Your task to perform on an android device: Search for seafood restaurants on Google Maps Image 0: 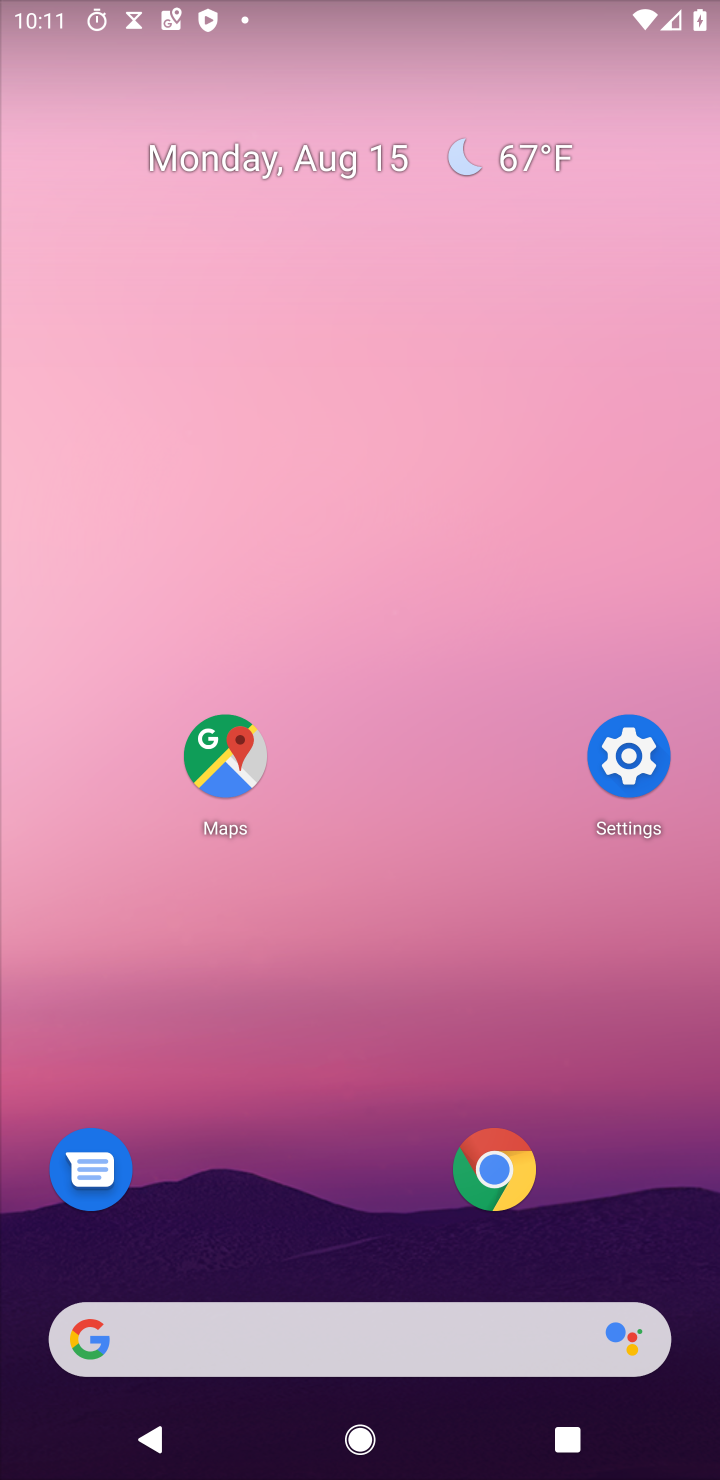
Step 0: click (247, 766)
Your task to perform on an android device: Search for seafood restaurants on Google Maps Image 1: 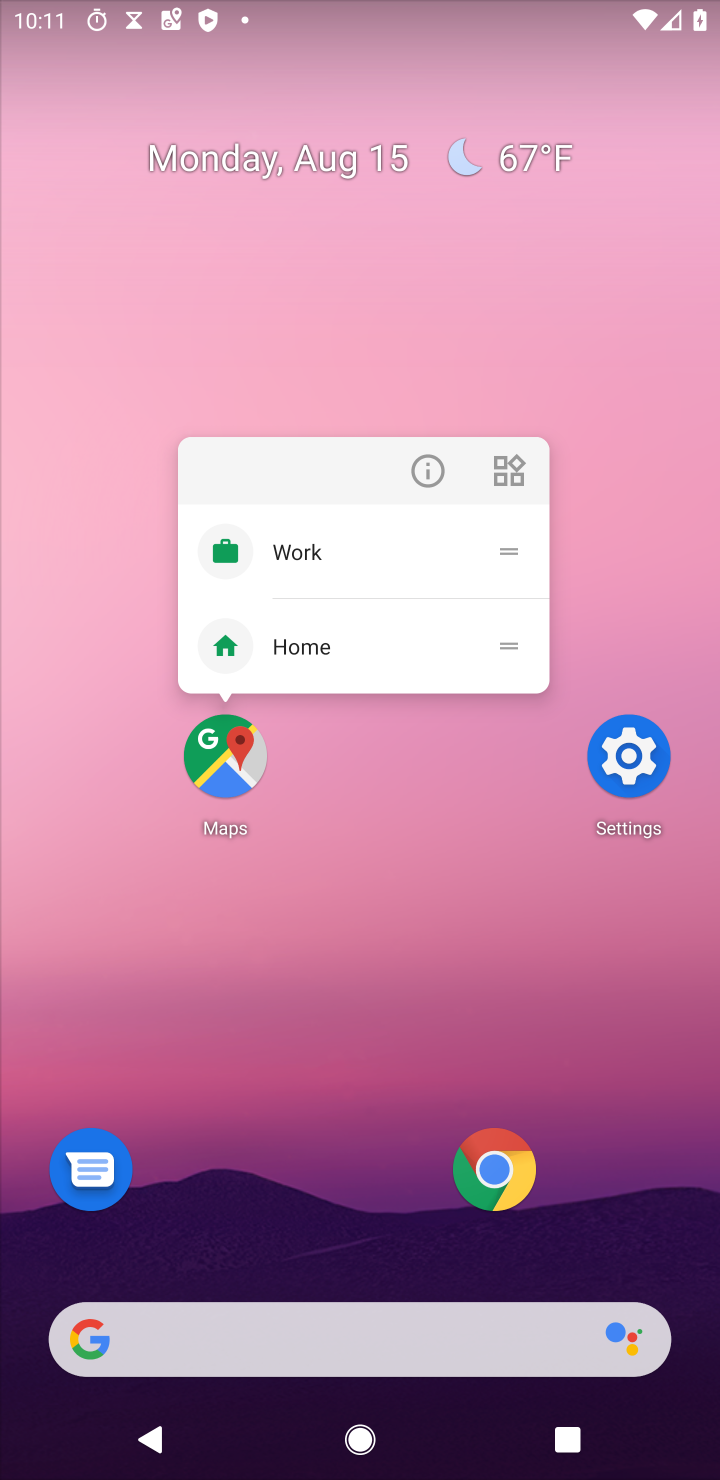
Step 1: click (218, 770)
Your task to perform on an android device: Search for seafood restaurants on Google Maps Image 2: 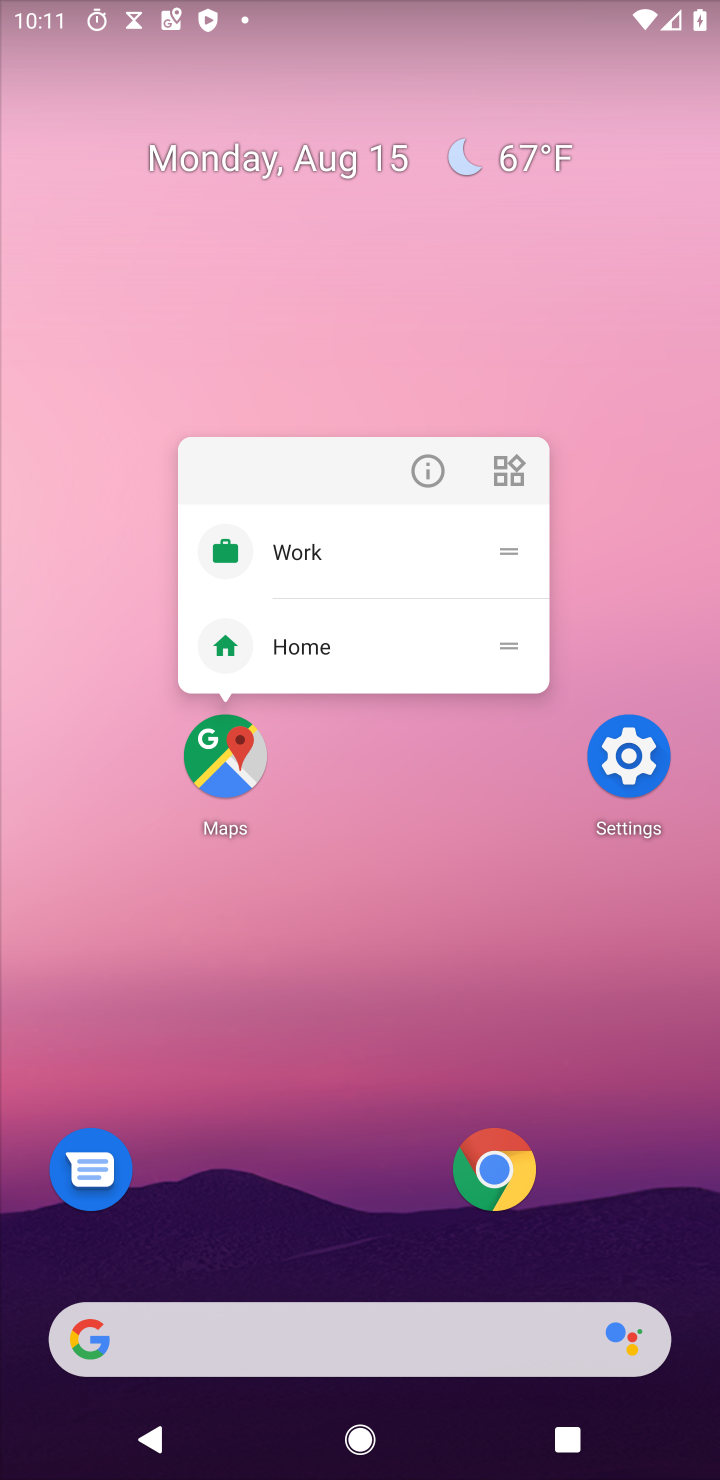
Step 2: click (218, 771)
Your task to perform on an android device: Search for seafood restaurants on Google Maps Image 3: 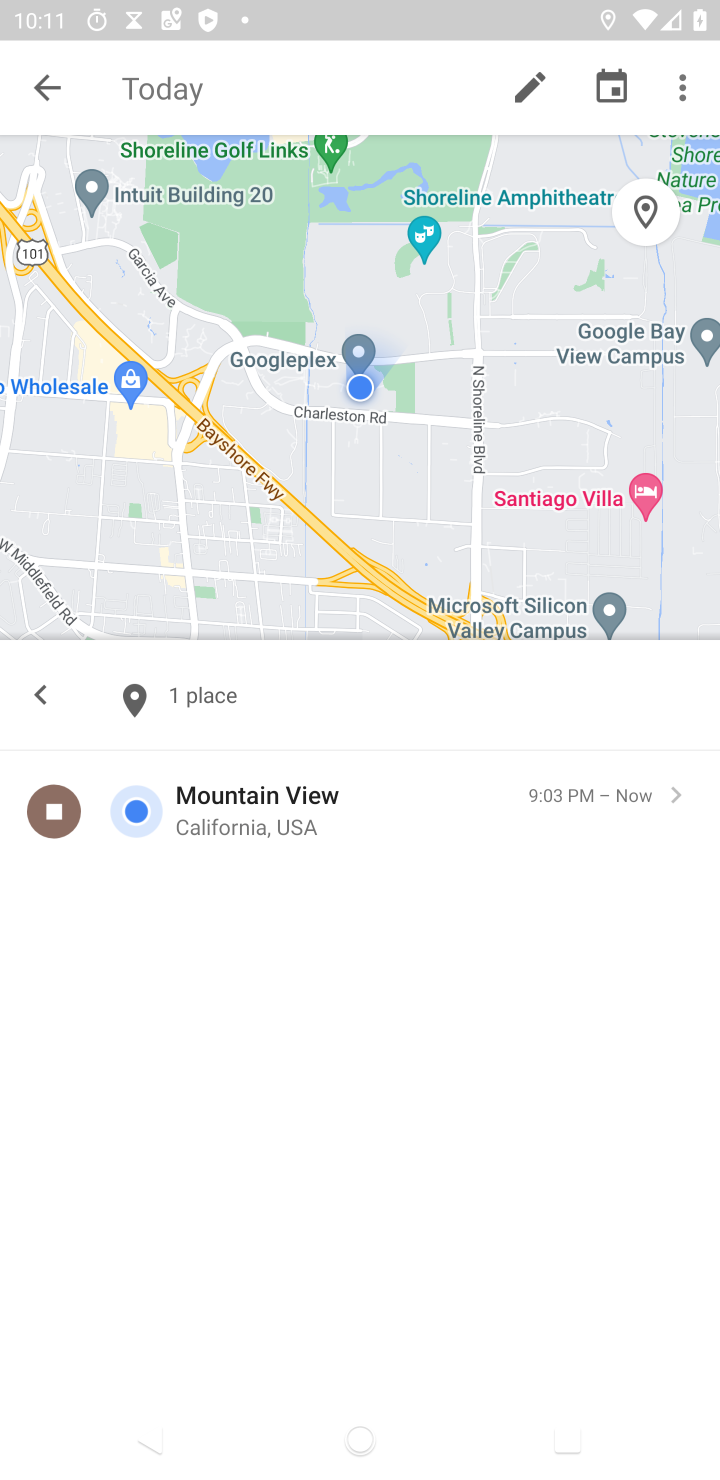
Step 3: click (48, 86)
Your task to perform on an android device: Search for seafood restaurants on Google Maps Image 4: 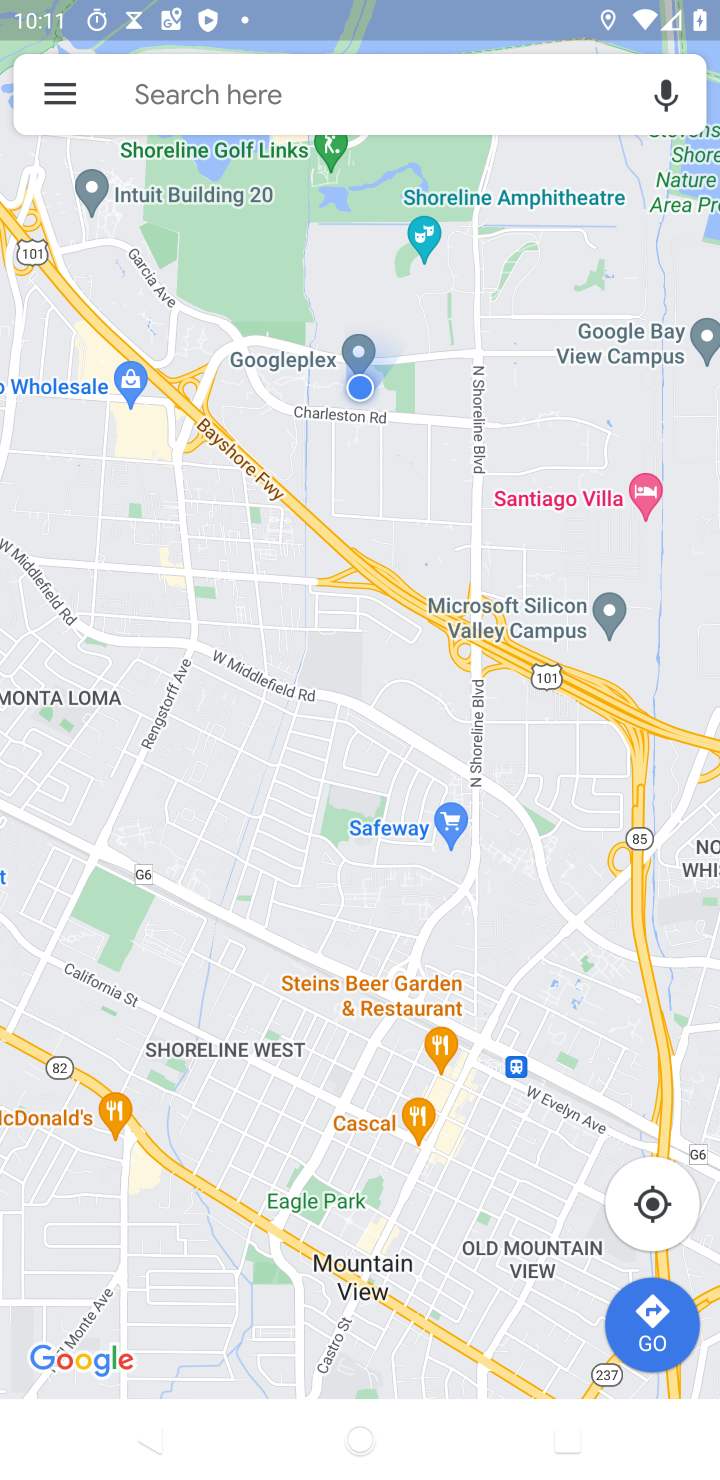
Step 4: click (278, 67)
Your task to perform on an android device: Search for seafood restaurants on Google Maps Image 5: 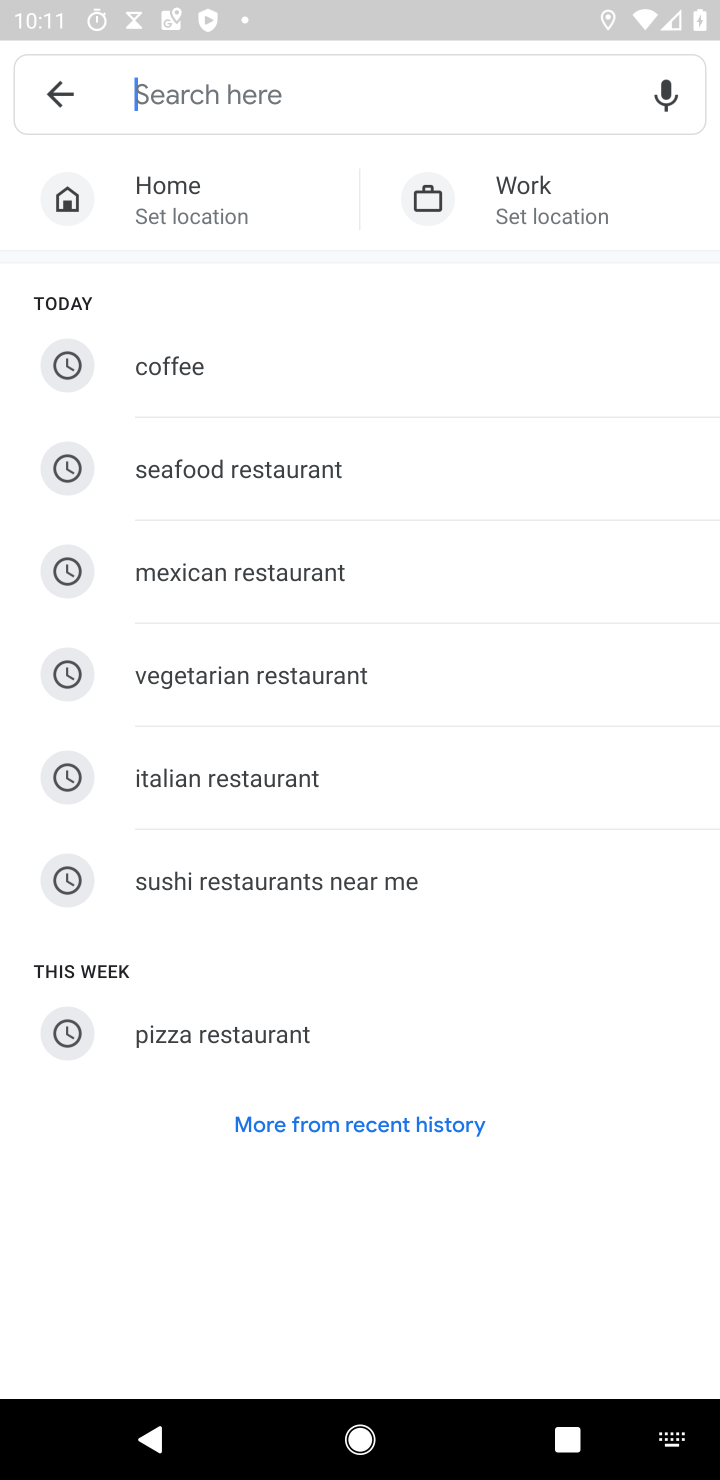
Step 5: click (257, 460)
Your task to perform on an android device: Search for seafood restaurants on Google Maps Image 6: 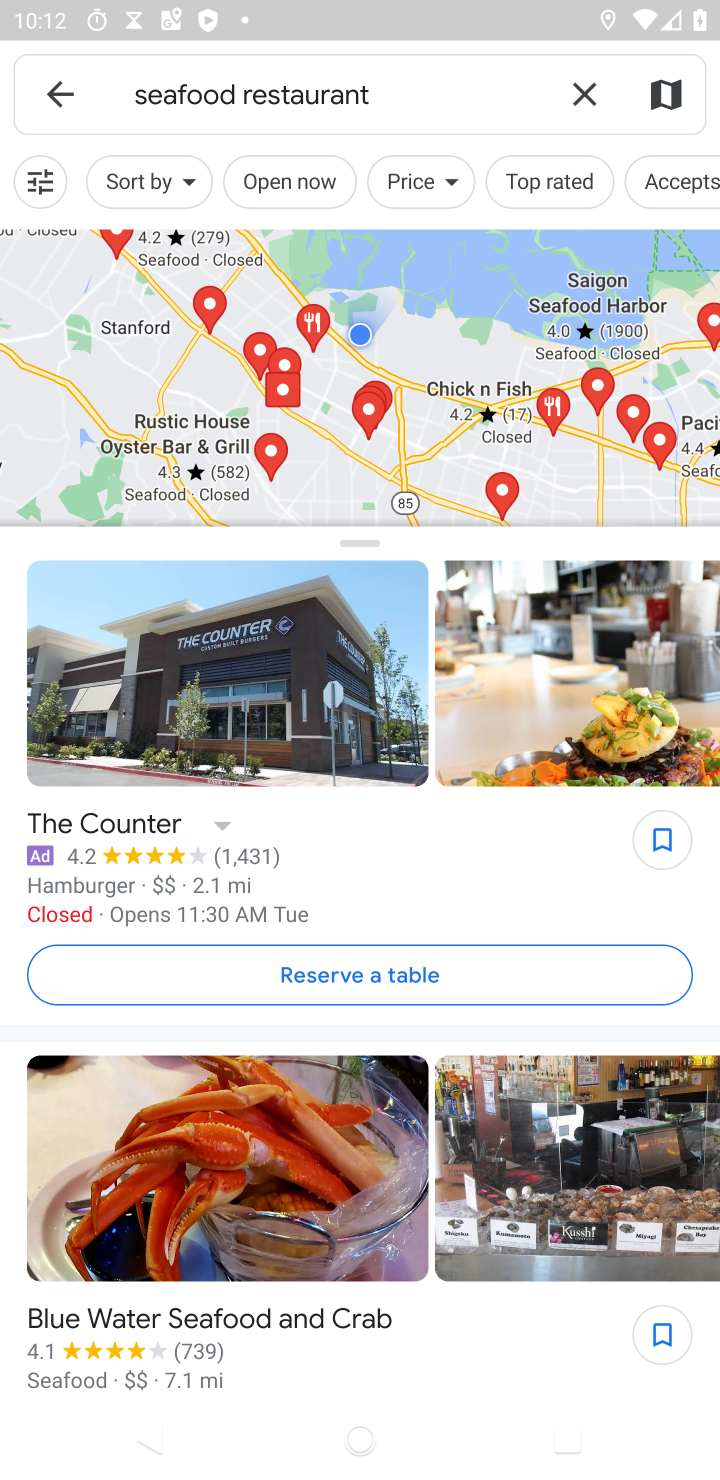
Step 6: task complete